Your task to perform on an android device: open app "Facebook Messenger" (install if not already installed), go to login, and select forgot password Image 0: 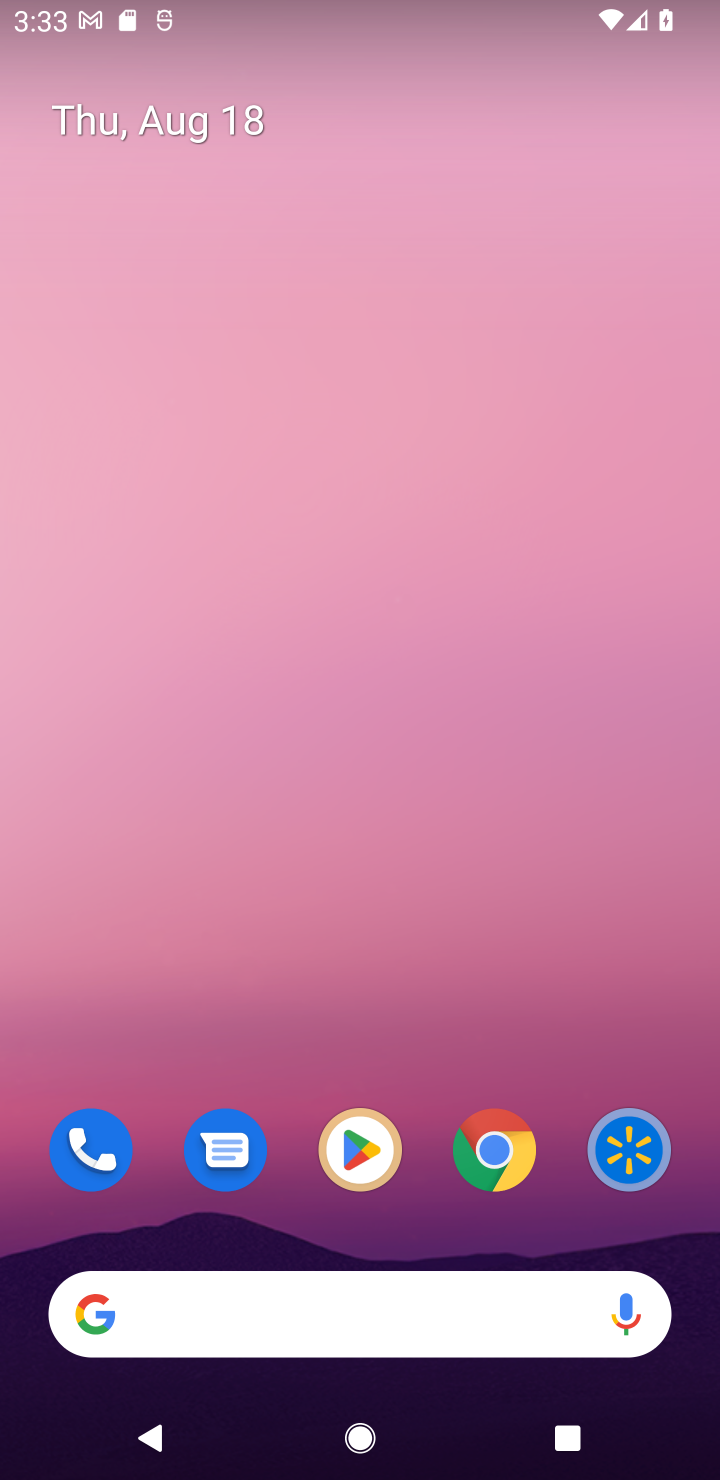
Step 0: click (360, 1151)
Your task to perform on an android device: open app "Facebook Messenger" (install if not already installed), go to login, and select forgot password Image 1: 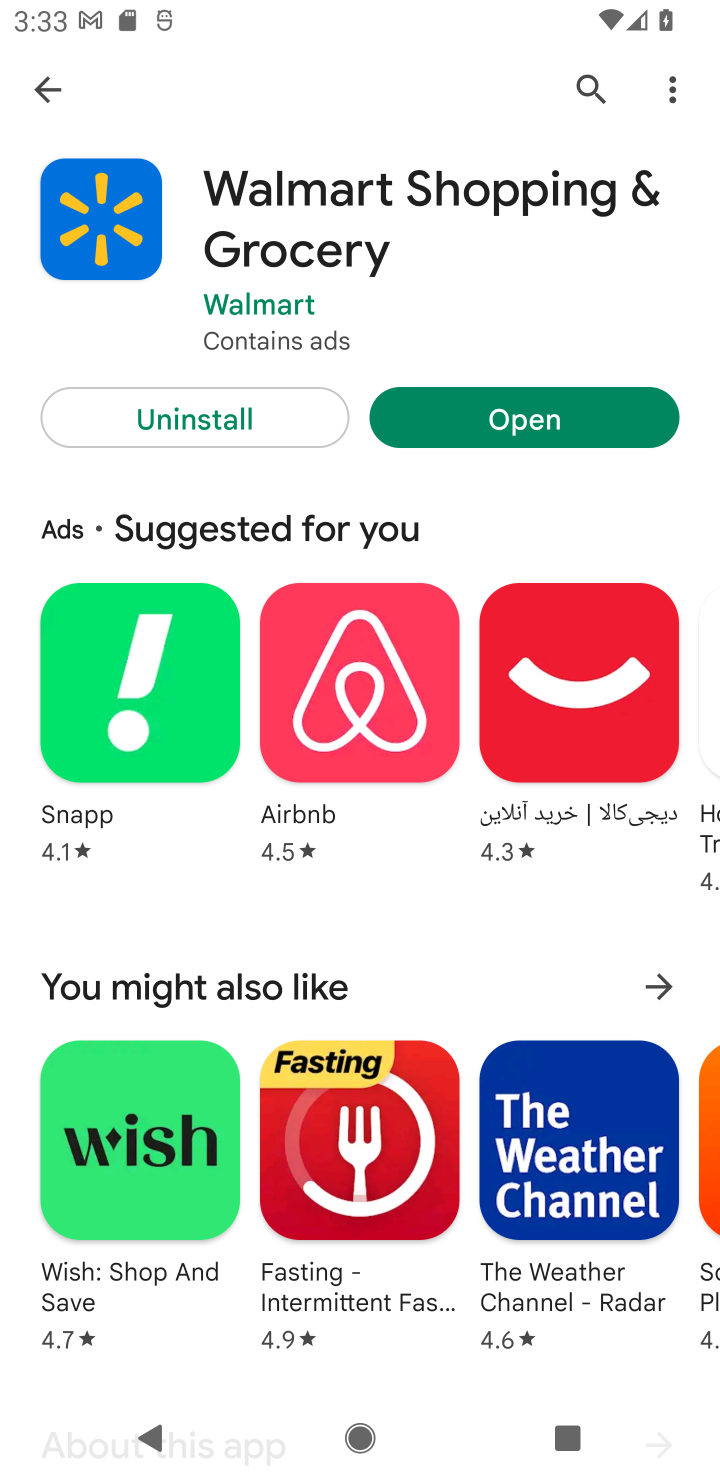
Step 1: click (585, 83)
Your task to perform on an android device: open app "Facebook Messenger" (install if not already installed), go to login, and select forgot password Image 2: 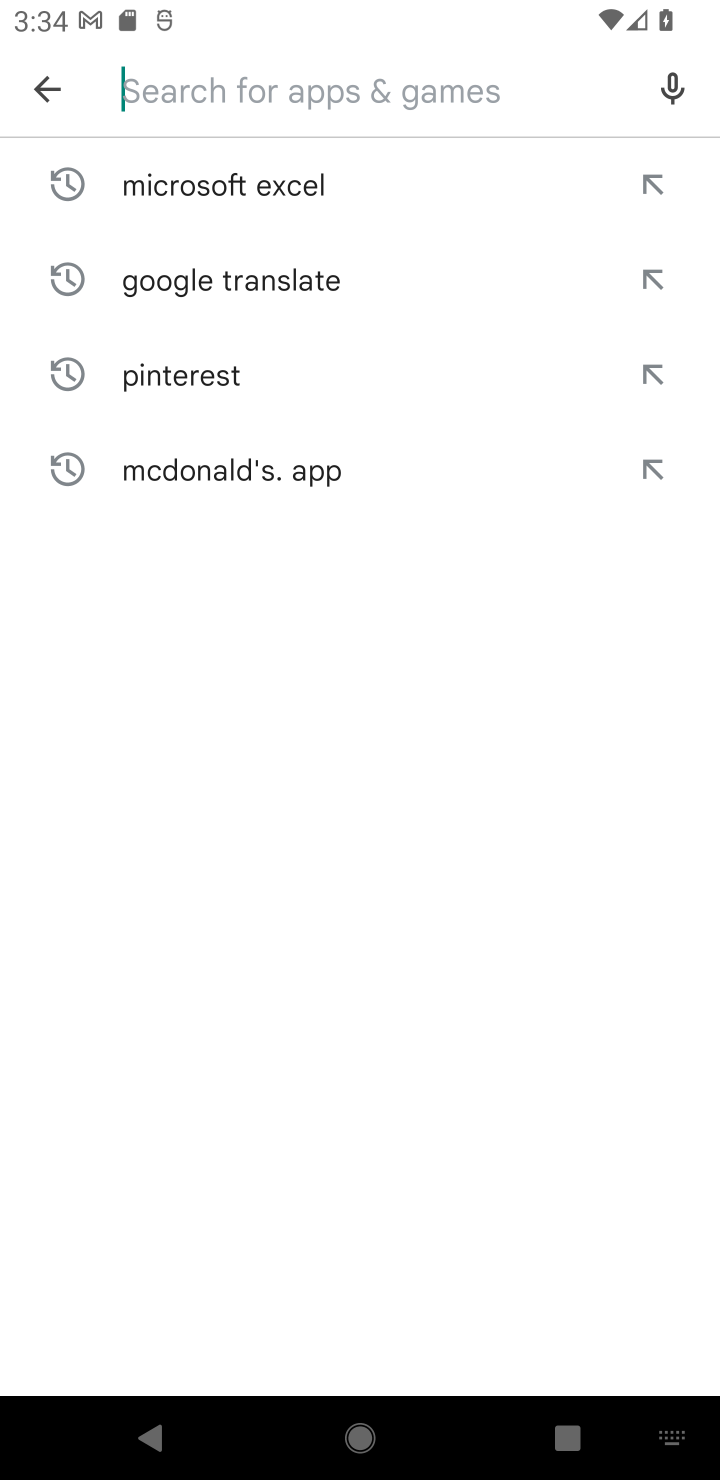
Step 2: type "Facebook Messenger"
Your task to perform on an android device: open app "Facebook Messenger" (install if not already installed), go to login, and select forgot password Image 3: 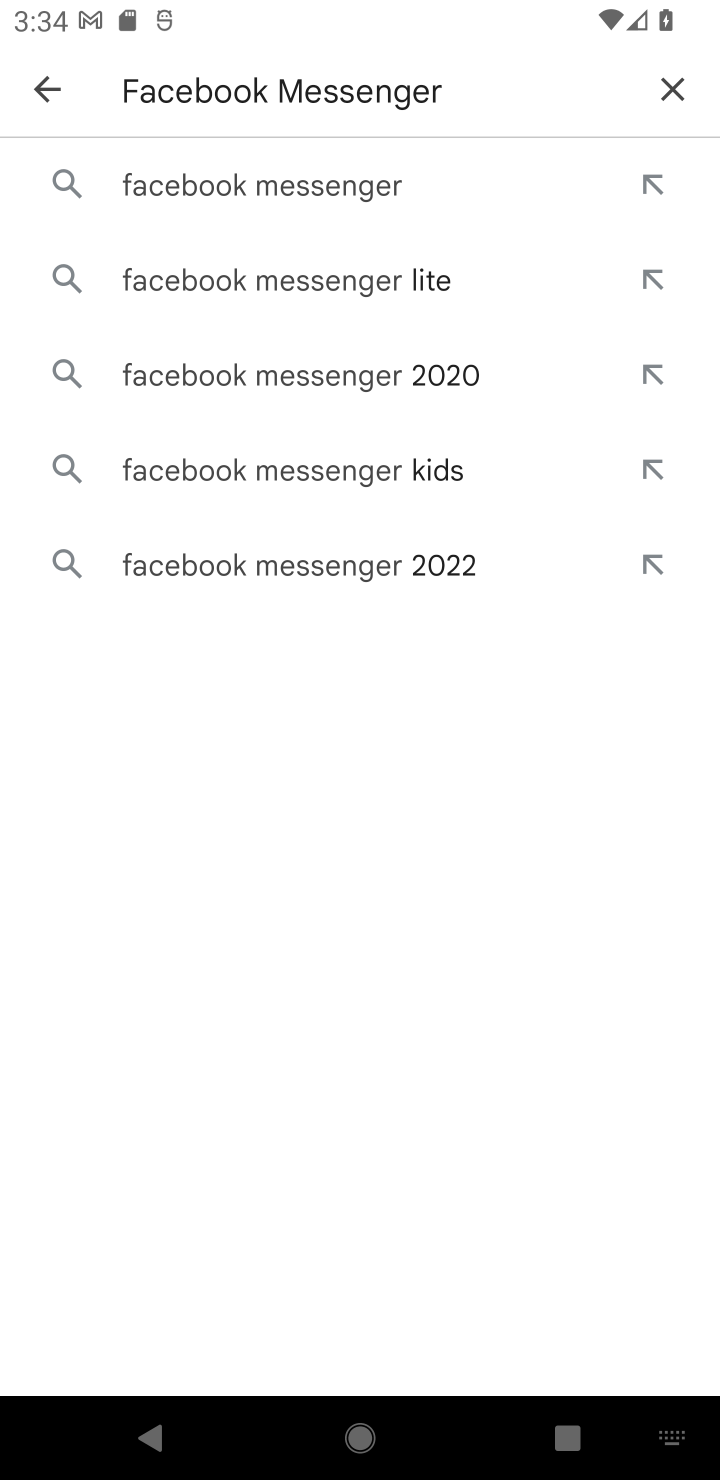
Step 3: click (256, 187)
Your task to perform on an android device: open app "Facebook Messenger" (install if not already installed), go to login, and select forgot password Image 4: 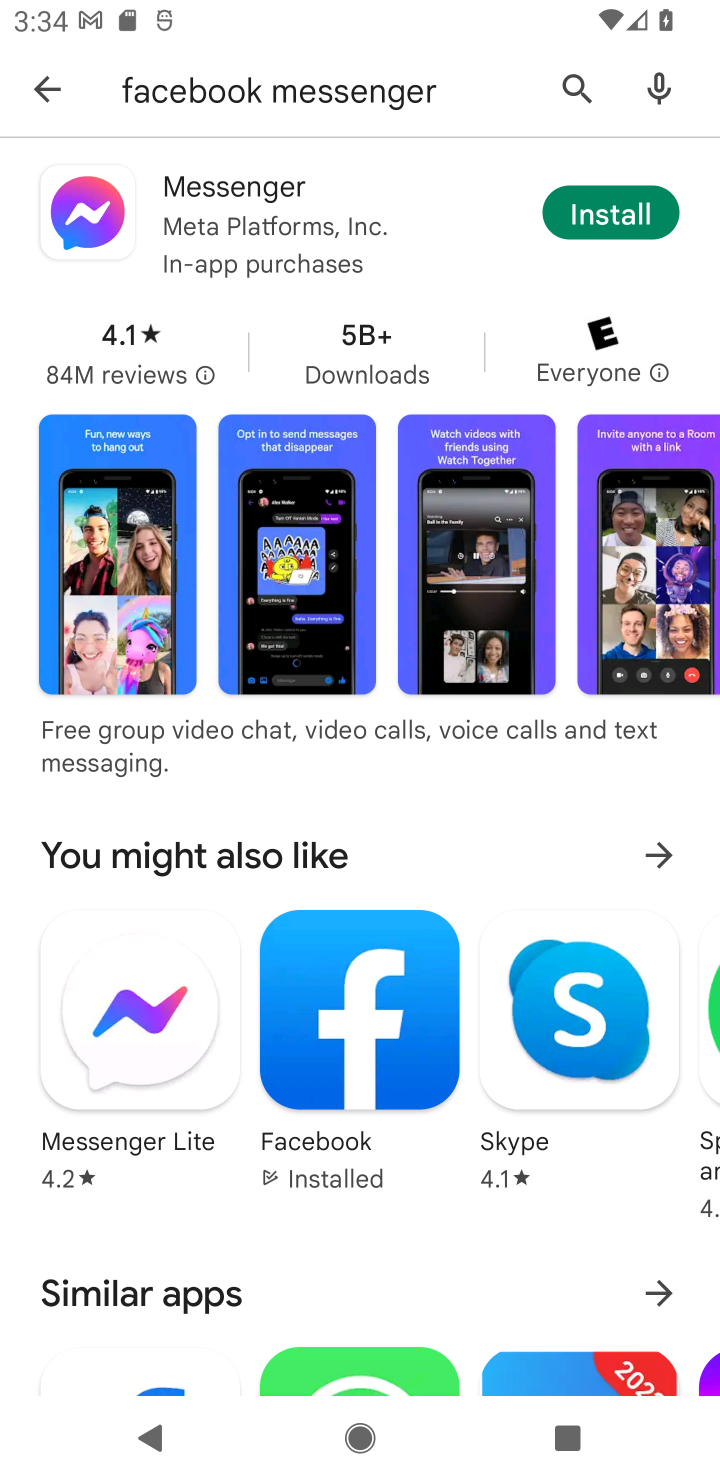
Step 4: click (603, 207)
Your task to perform on an android device: open app "Facebook Messenger" (install if not already installed), go to login, and select forgot password Image 5: 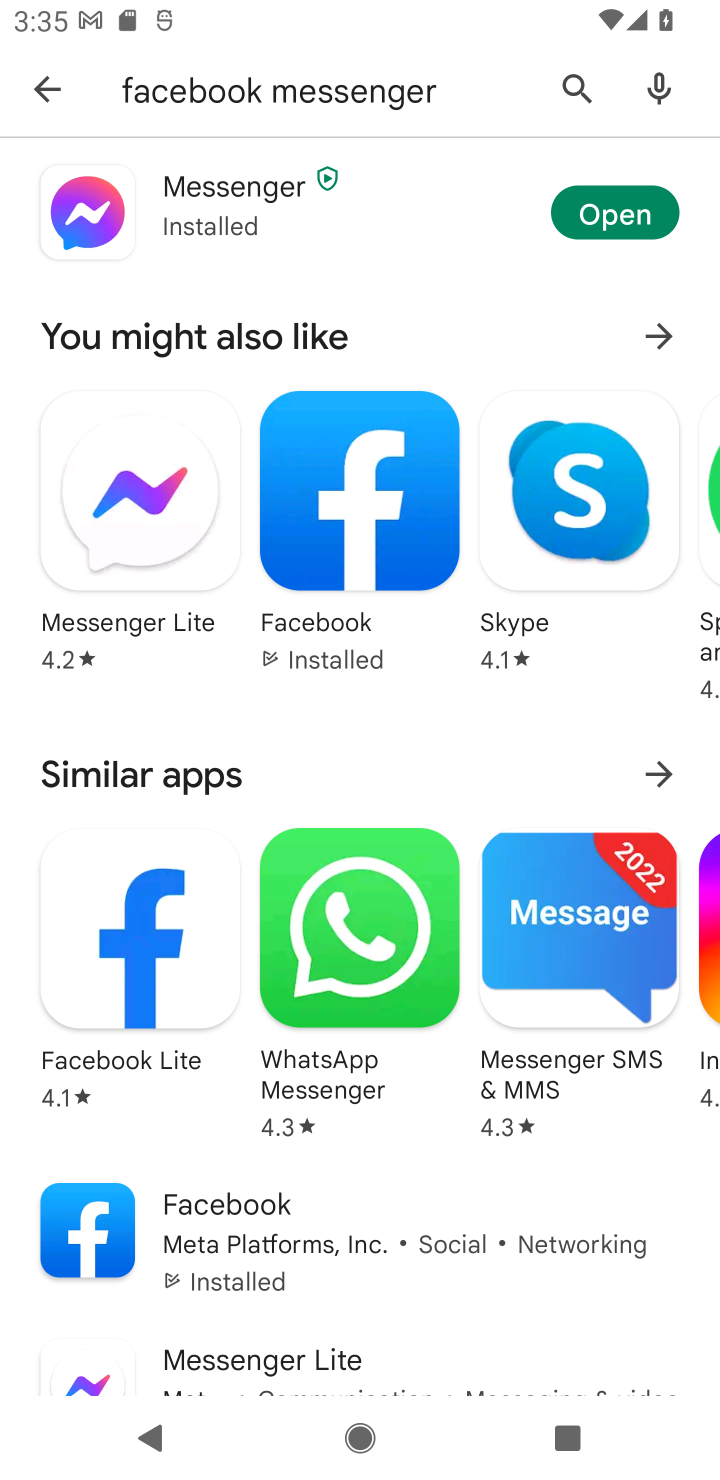
Step 5: click (612, 208)
Your task to perform on an android device: open app "Facebook Messenger" (install if not already installed), go to login, and select forgot password Image 6: 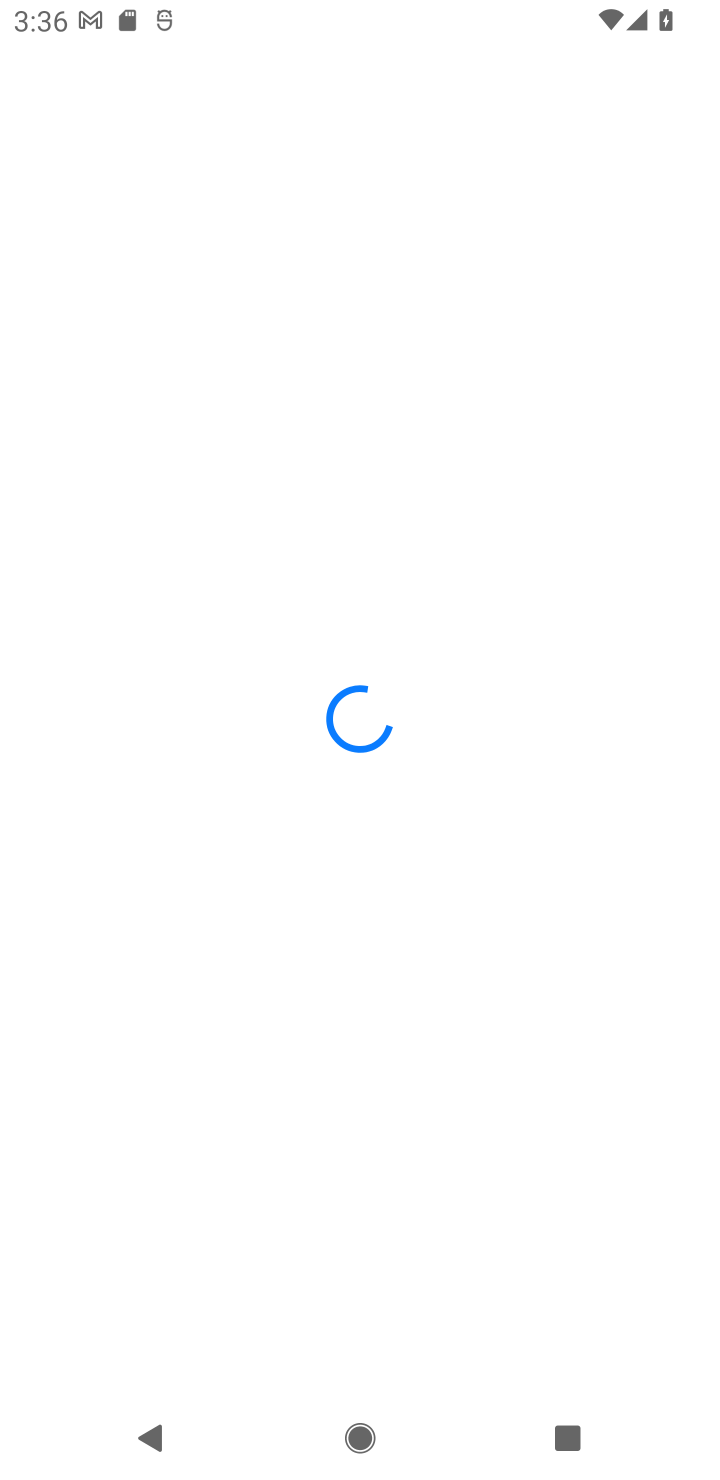
Step 6: press back button
Your task to perform on an android device: open app "Facebook Messenger" (install if not already installed), go to login, and select forgot password Image 7: 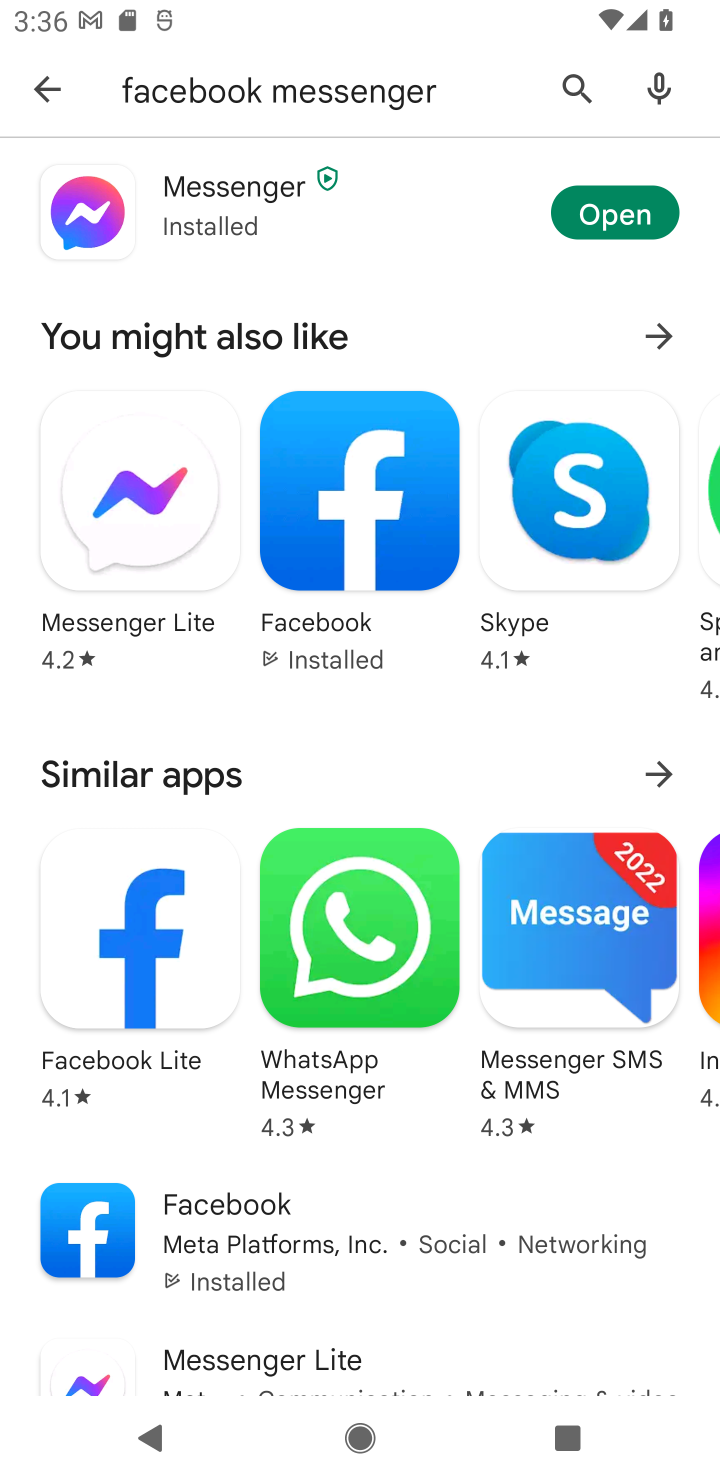
Step 7: click (603, 210)
Your task to perform on an android device: open app "Facebook Messenger" (install if not already installed), go to login, and select forgot password Image 8: 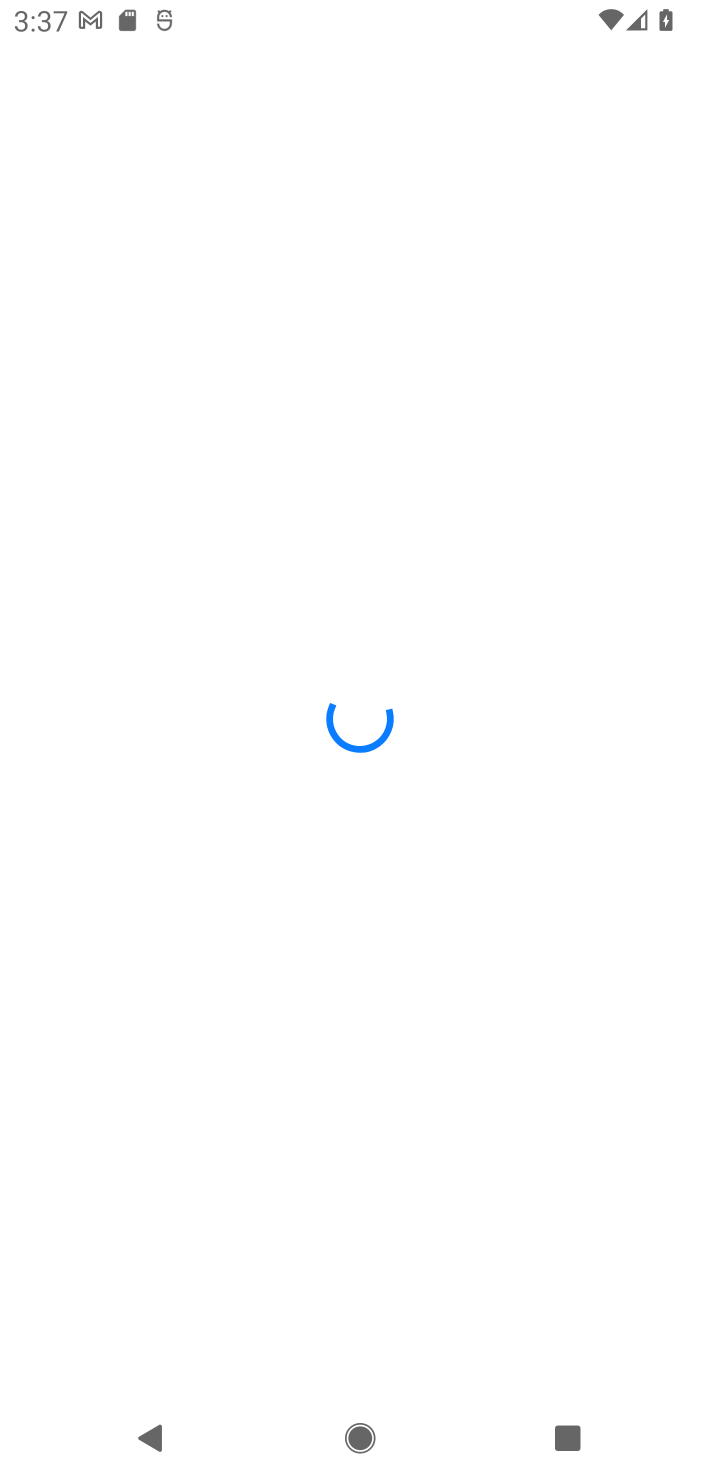
Step 8: task complete